Your task to perform on an android device: Check the weather Image 0: 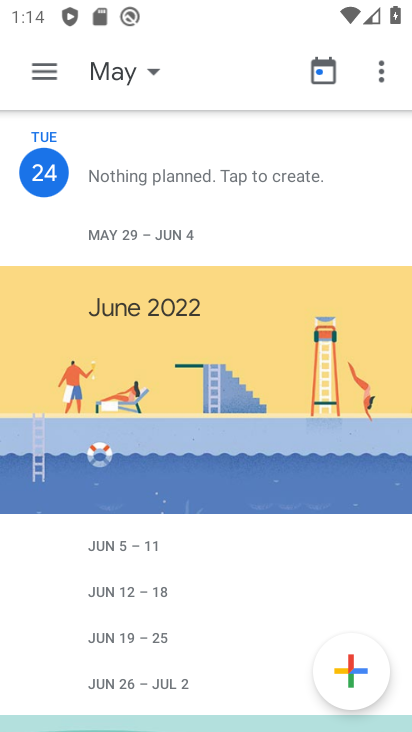
Step 0: press home button
Your task to perform on an android device: Check the weather Image 1: 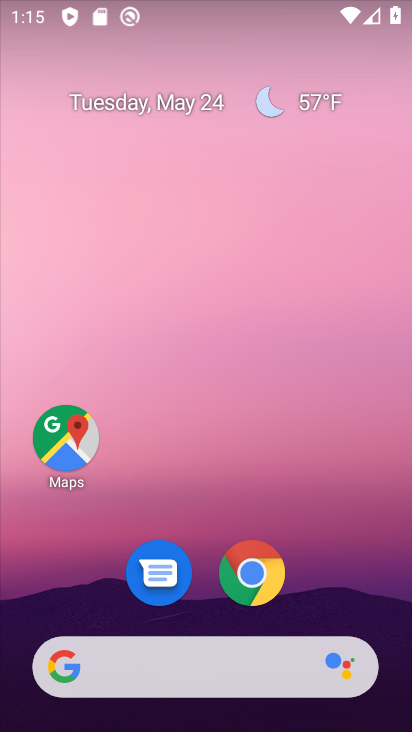
Step 1: click (320, 110)
Your task to perform on an android device: Check the weather Image 2: 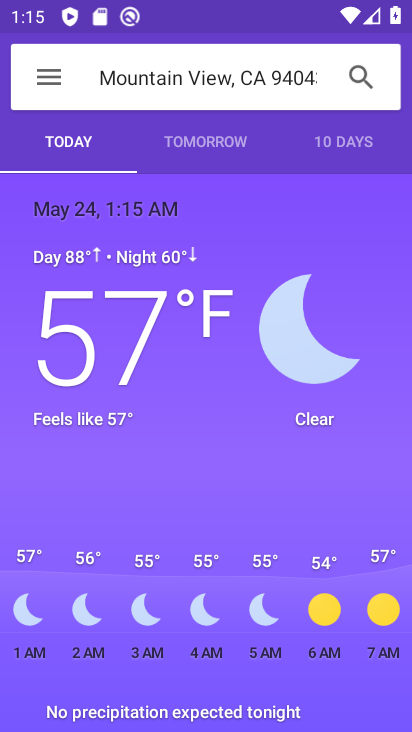
Step 2: task complete